Your task to perform on an android device: Open Chrome and go to settings Image 0: 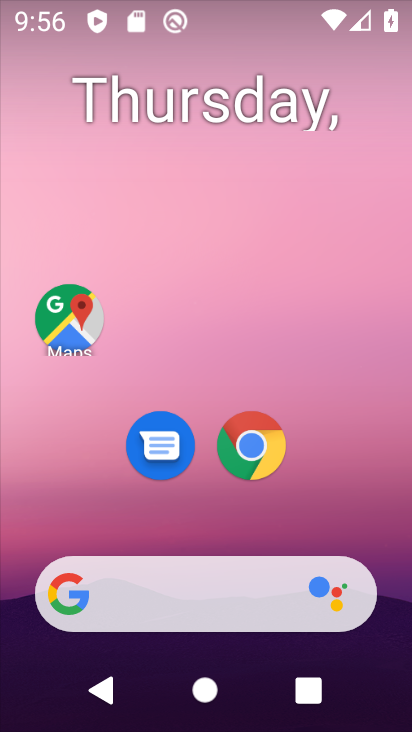
Step 0: click (252, 448)
Your task to perform on an android device: Open Chrome and go to settings Image 1: 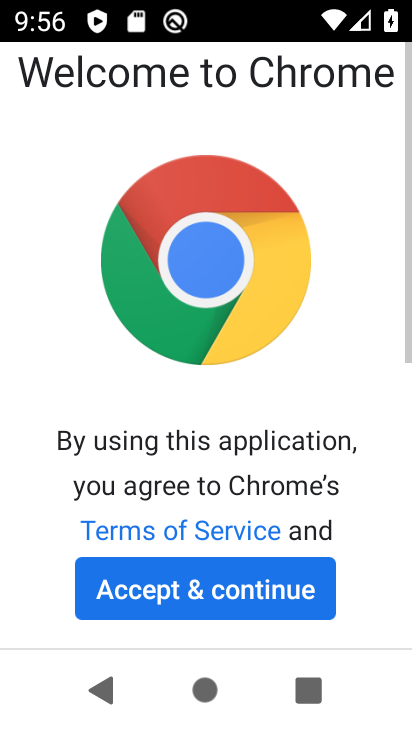
Step 1: click (247, 583)
Your task to perform on an android device: Open Chrome and go to settings Image 2: 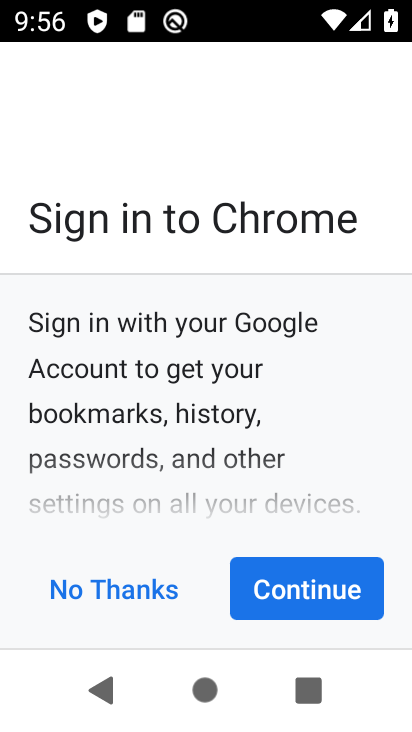
Step 2: click (304, 584)
Your task to perform on an android device: Open Chrome and go to settings Image 3: 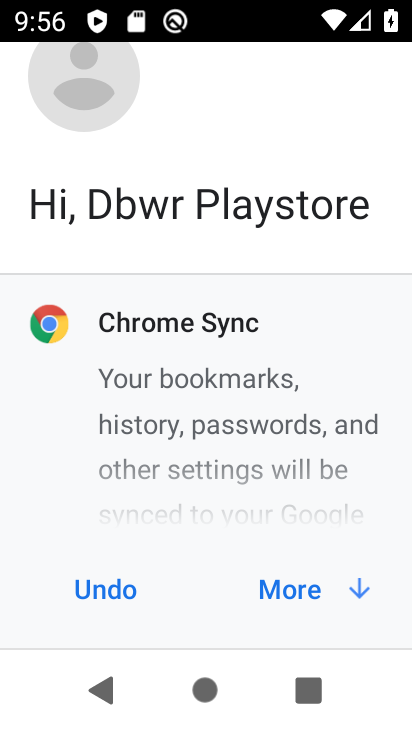
Step 3: click (305, 583)
Your task to perform on an android device: Open Chrome and go to settings Image 4: 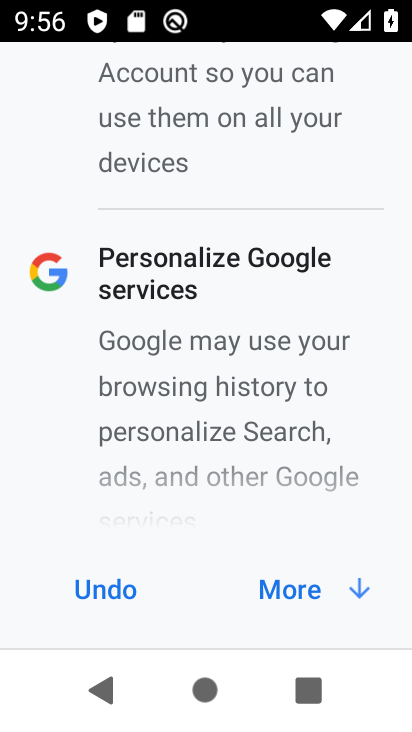
Step 4: click (305, 583)
Your task to perform on an android device: Open Chrome and go to settings Image 5: 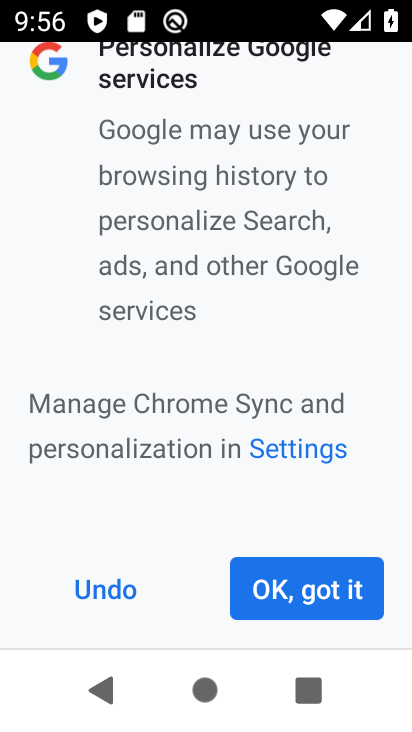
Step 5: click (305, 583)
Your task to perform on an android device: Open Chrome and go to settings Image 6: 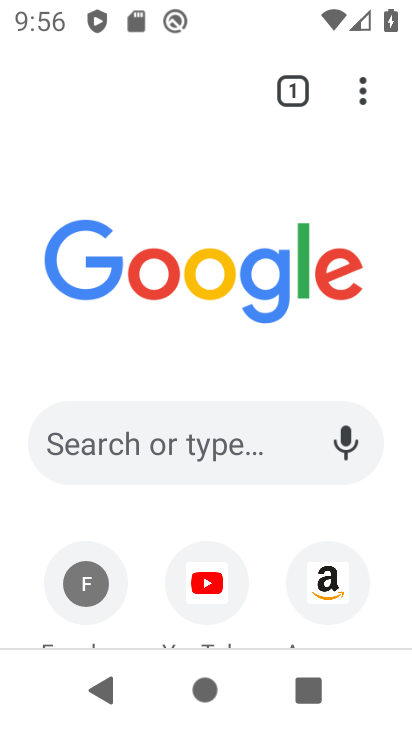
Step 6: click (353, 91)
Your task to perform on an android device: Open Chrome and go to settings Image 7: 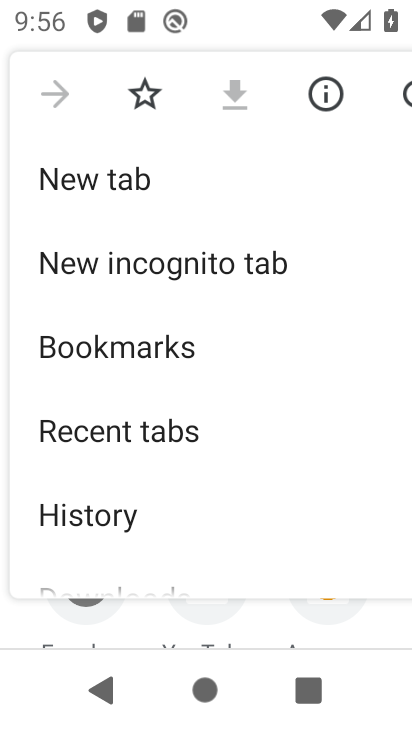
Step 7: drag from (147, 493) to (216, 54)
Your task to perform on an android device: Open Chrome and go to settings Image 8: 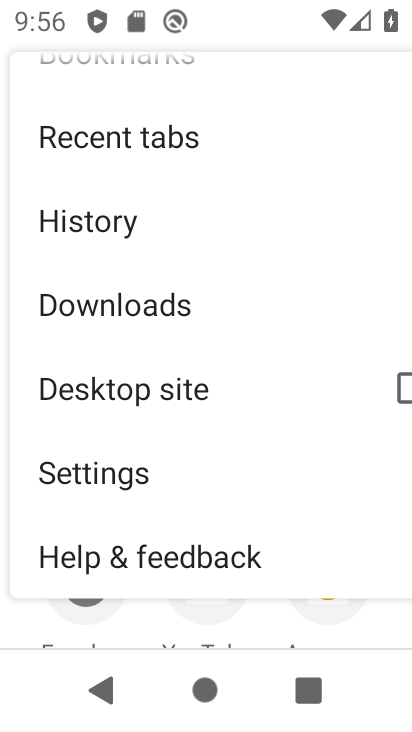
Step 8: click (101, 486)
Your task to perform on an android device: Open Chrome and go to settings Image 9: 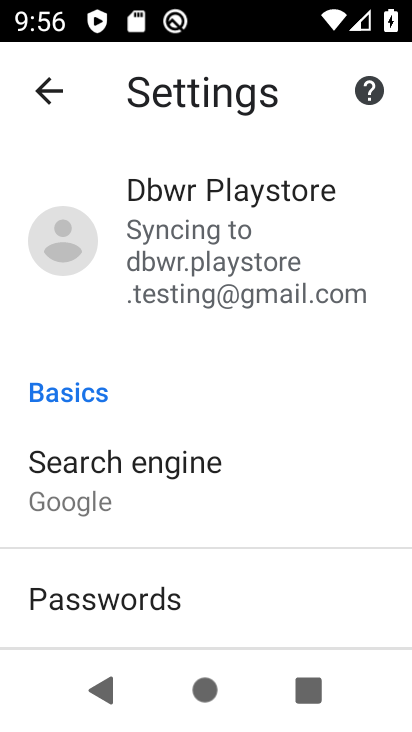
Step 9: task complete